Your task to perform on an android device: turn on the 24-hour format for clock Image 0: 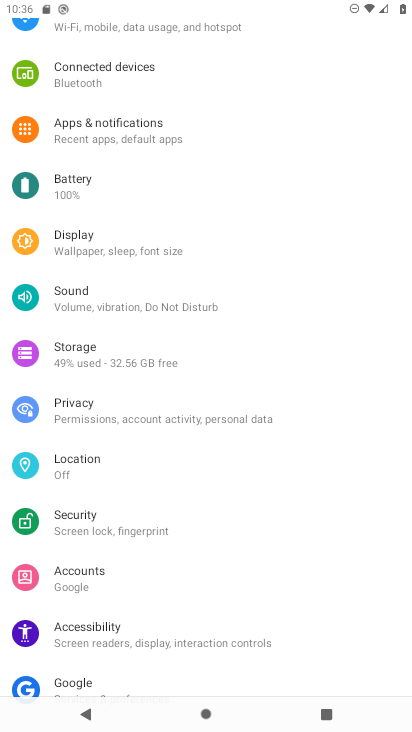
Step 0: press home button
Your task to perform on an android device: turn on the 24-hour format for clock Image 1: 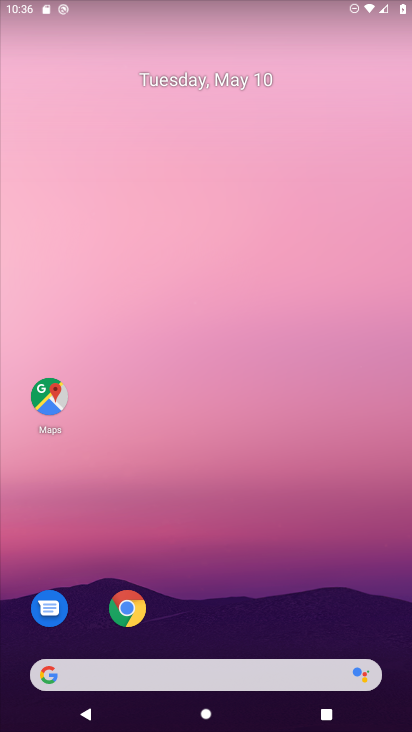
Step 1: drag from (241, 622) to (281, 298)
Your task to perform on an android device: turn on the 24-hour format for clock Image 2: 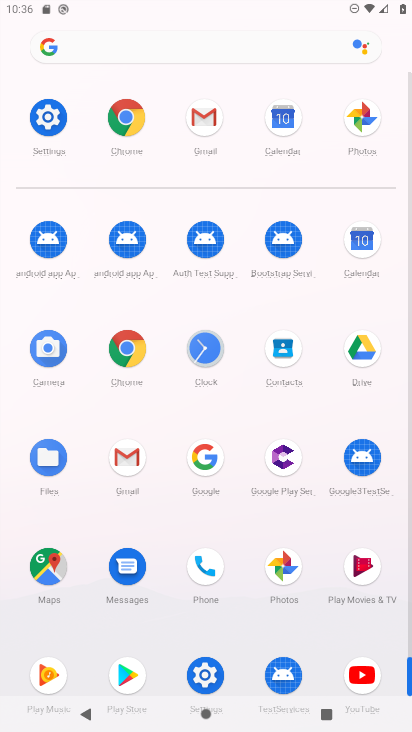
Step 2: click (202, 349)
Your task to perform on an android device: turn on the 24-hour format for clock Image 3: 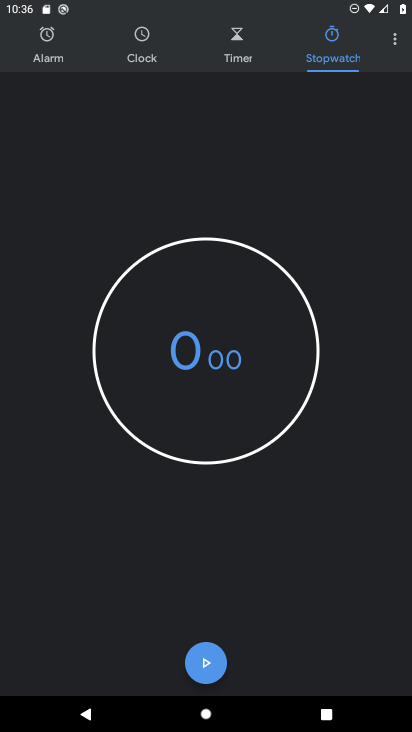
Step 3: click (385, 44)
Your task to perform on an android device: turn on the 24-hour format for clock Image 4: 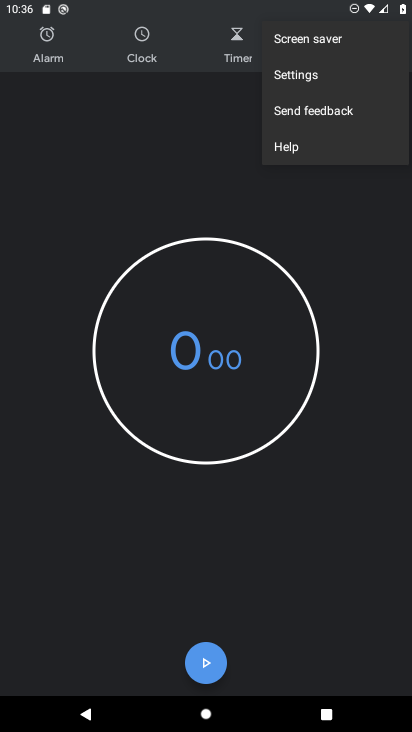
Step 4: click (320, 72)
Your task to perform on an android device: turn on the 24-hour format for clock Image 5: 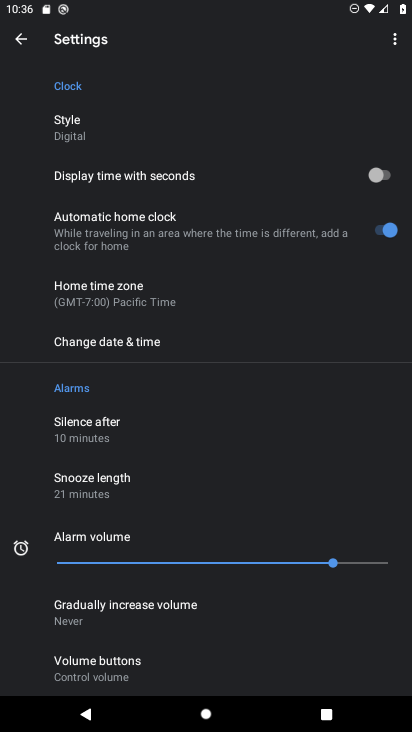
Step 5: click (124, 345)
Your task to perform on an android device: turn on the 24-hour format for clock Image 6: 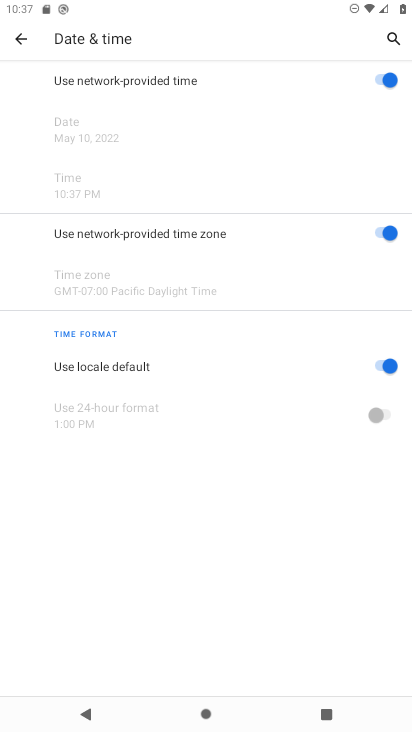
Step 6: click (376, 362)
Your task to perform on an android device: turn on the 24-hour format for clock Image 7: 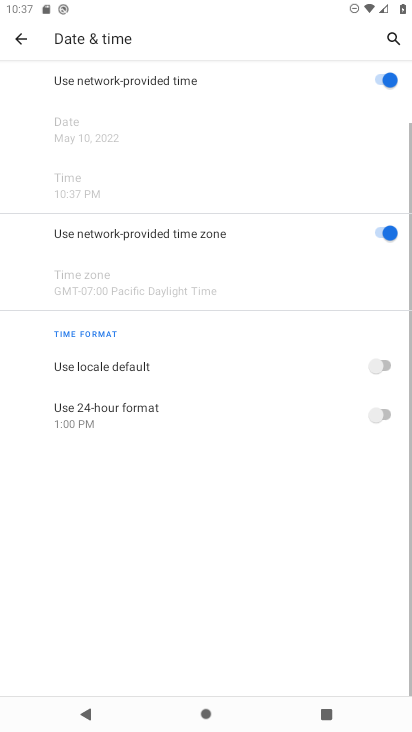
Step 7: click (378, 415)
Your task to perform on an android device: turn on the 24-hour format for clock Image 8: 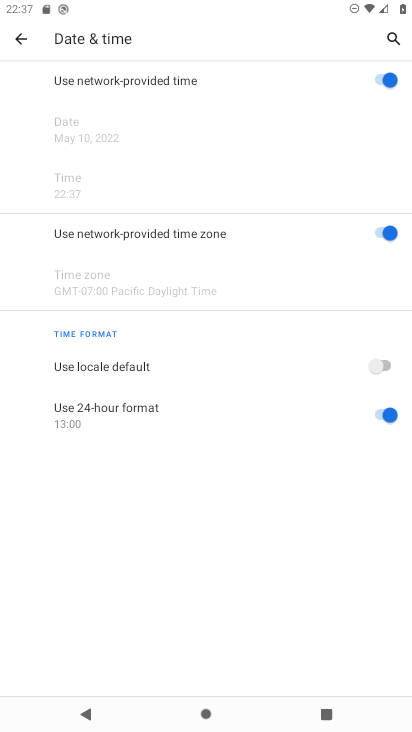
Step 8: task complete